Your task to perform on an android device: change keyboard looks Image 0: 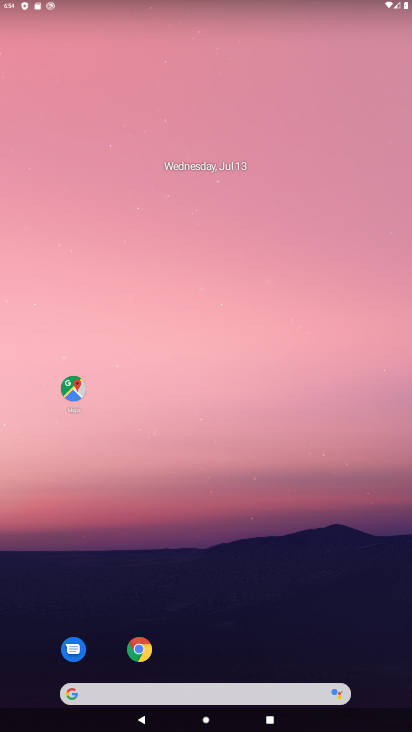
Step 0: drag from (212, 696) to (256, 171)
Your task to perform on an android device: change keyboard looks Image 1: 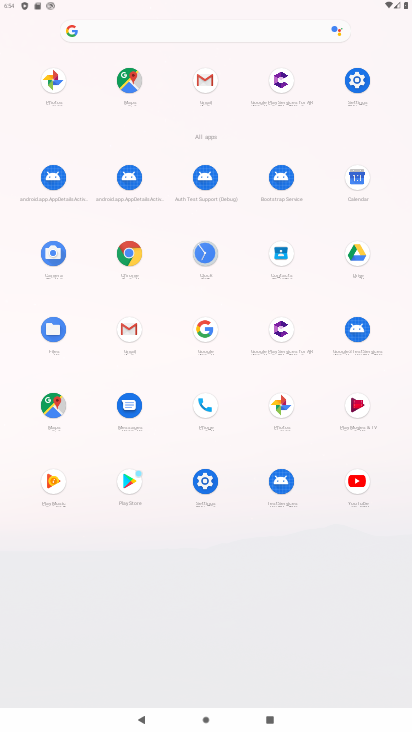
Step 1: click (357, 79)
Your task to perform on an android device: change keyboard looks Image 2: 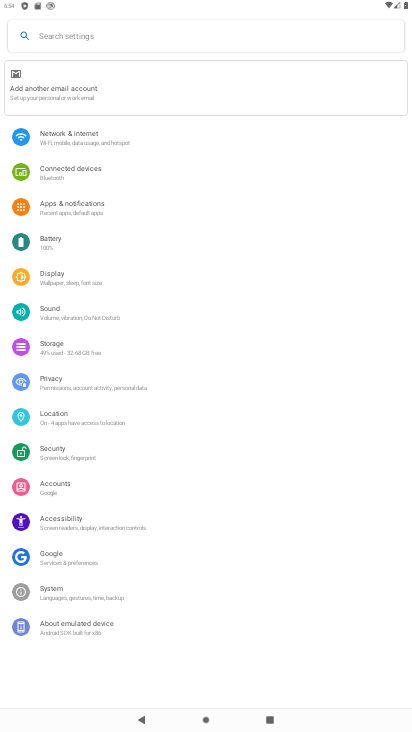
Step 2: click (61, 594)
Your task to perform on an android device: change keyboard looks Image 3: 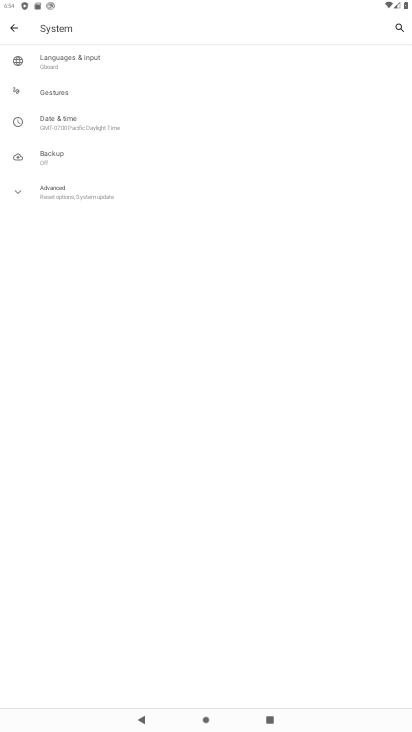
Step 3: click (94, 59)
Your task to perform on an android device: change keyboard looks Image 4: 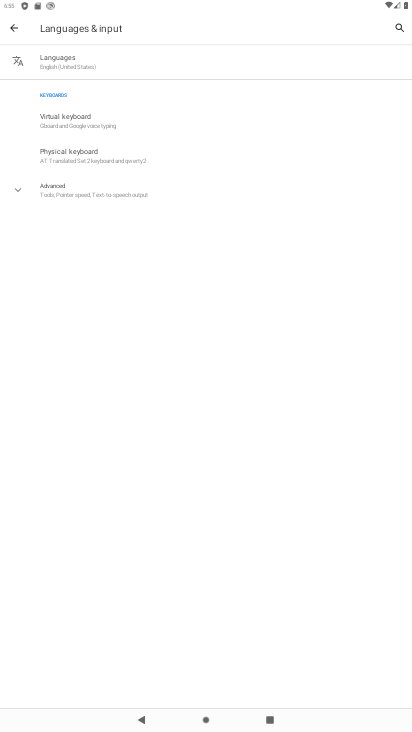
Step 4: click (100, 120)
Your task to perform on an android device: change keyboard looks Image 5: 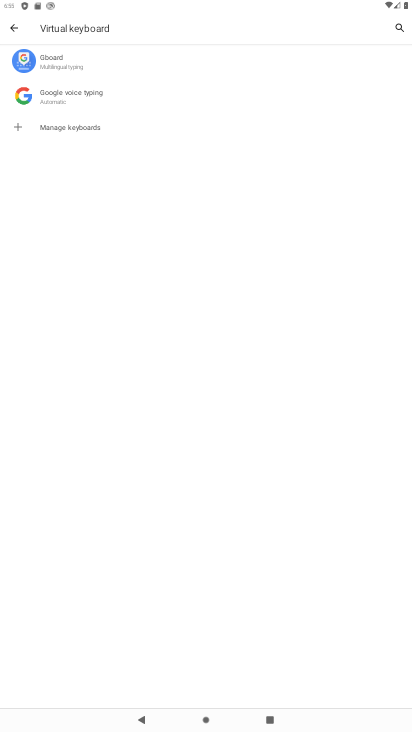
Step 5: click (64, 62)
Your task to perform on an android device: change keyboard looks Image 6: 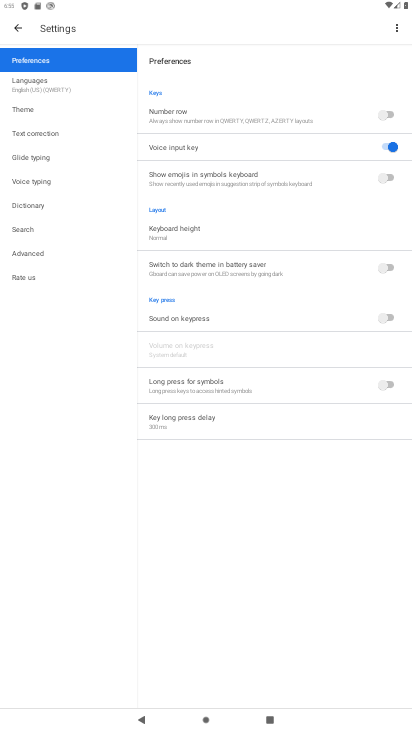
Step 6: click (30, 113)
Your task to perform on an android device: change keyboard looks Image 7: 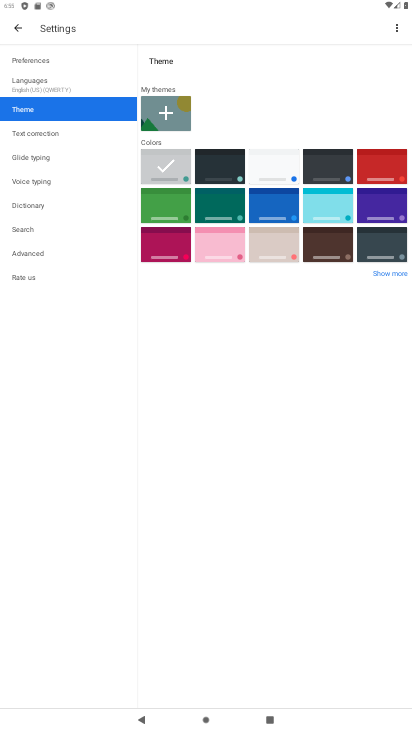
Step 7: click (368, 208)
Your task to perform on an android device: change keyboard looks Image 8: 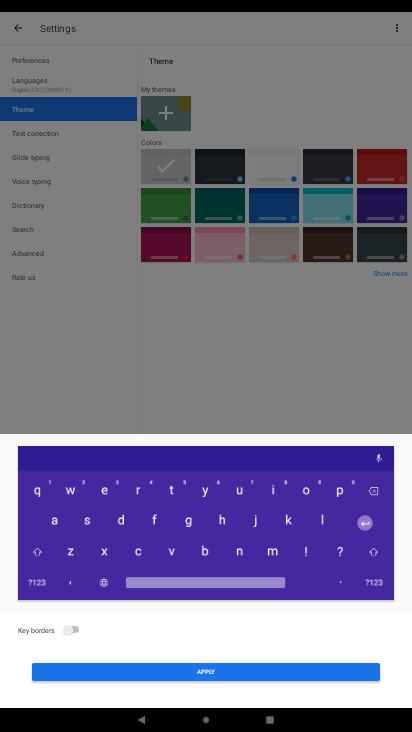
Step 8: click (74, 629)
Your task to perform on an android device: change keyboard looks Image 9: 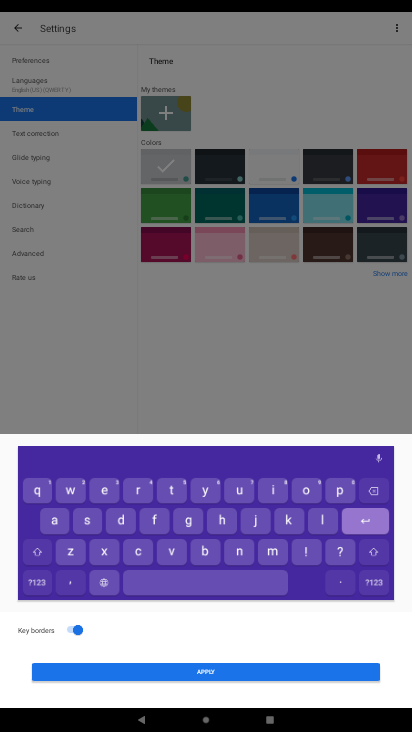
Step 9: click (206, 674)
Your task to perform on an android device: change keyboard looks Image 10: 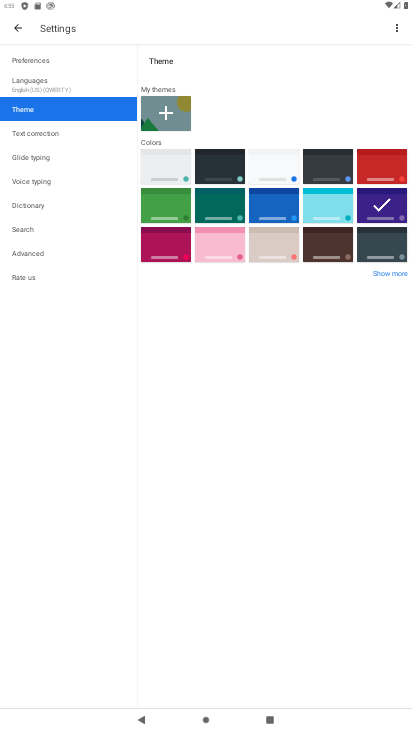
Step 10: task complete